Your task to perform on an android device: check battery use Image 0: 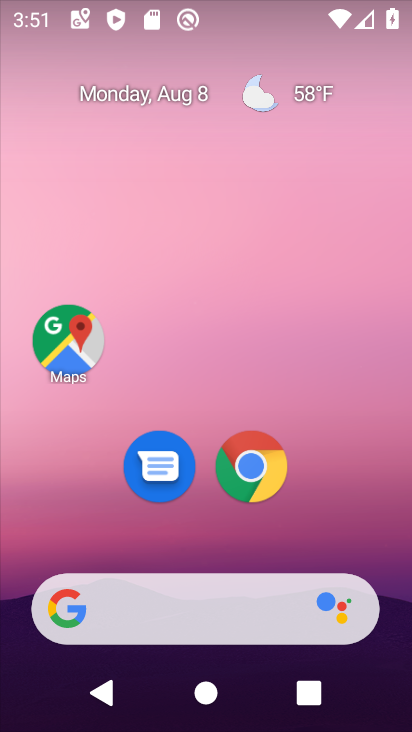
Step 0: drag from (144, 546) to (197, 194)
Your task to perform on an android device: check battery use Image 1: 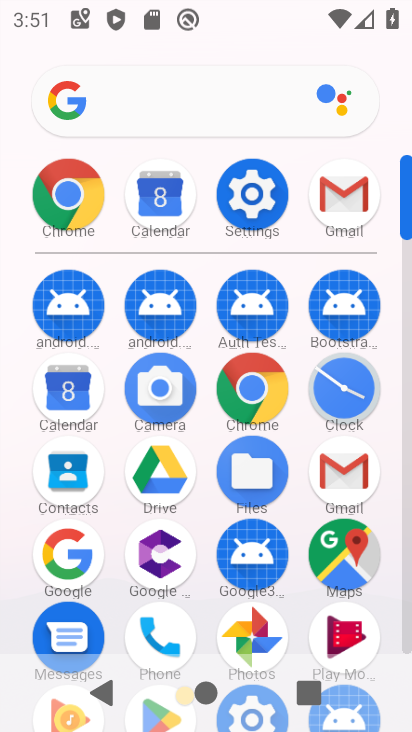
Step 1: click (249, 169)
Your task to perform on an android device: check battery use Image 2: 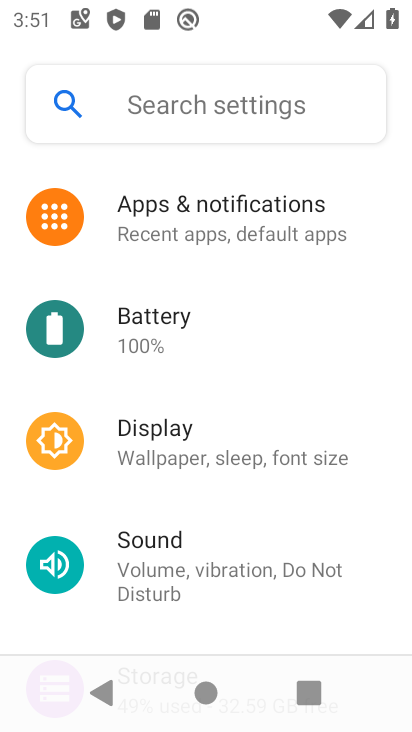
Step 2: click (191, 338)
Your task to perform on an android device: check battery use Image 3: 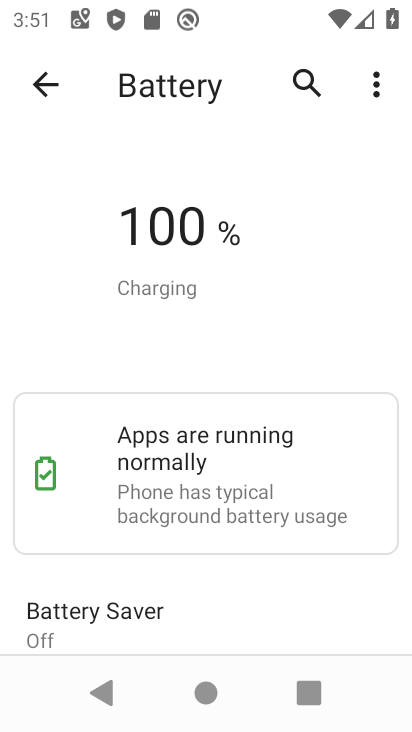
Step 3: task complete